Your task to perform on an android device: change the clock display to show seconds Image 0: 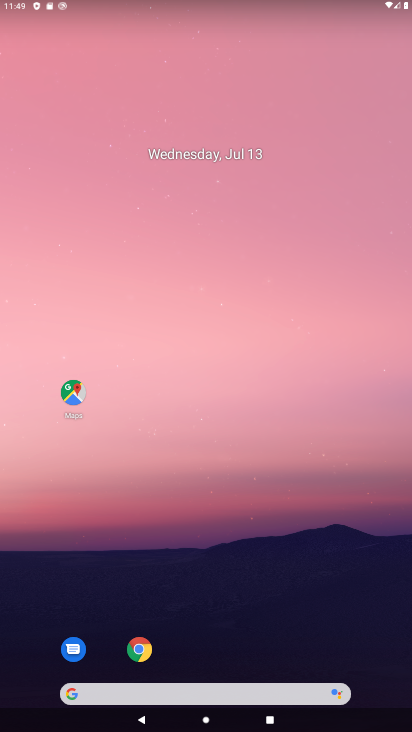
Step 0: drag from (261, 572) to (322, 14)
Your task to perform on an android device: change the clock display to show seconds Image 1: 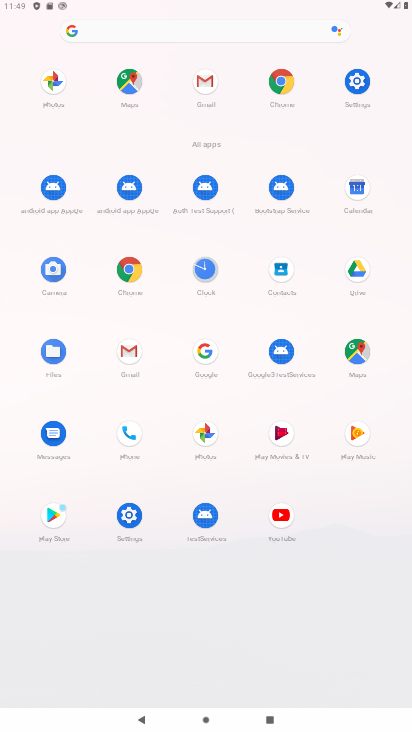
Step 1: click (204, 268)
Your task to perform on an android device: change the clock display to show seconds Image 2: 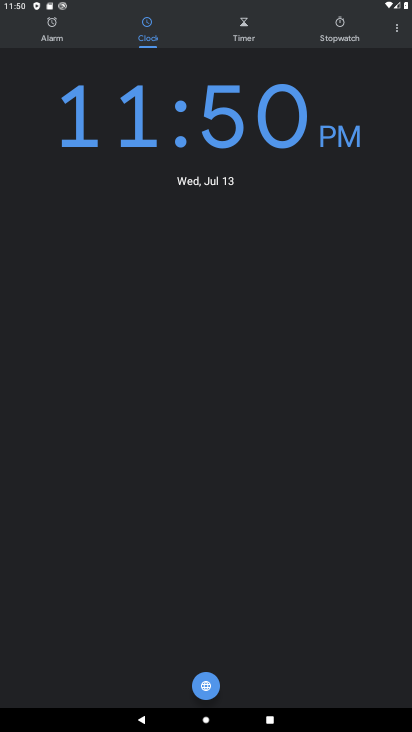
Step 2: click (397, 27)
Your task to perform on an android device: change the clock display to show seconds Image 3: 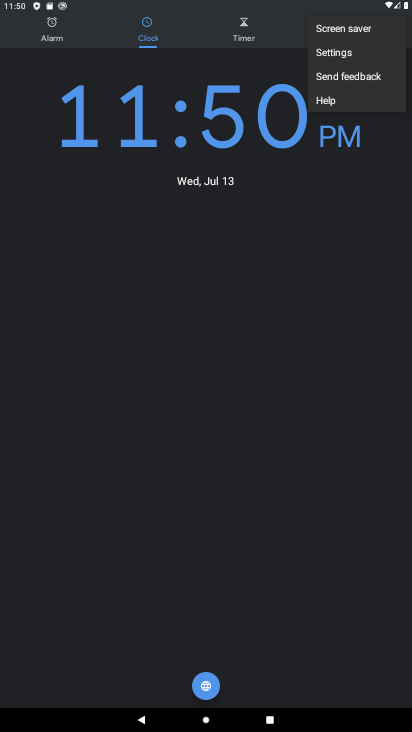
Step 3: click (359, 56)
Your task to perform on an android device: change the clock display to show seconds Image 4: 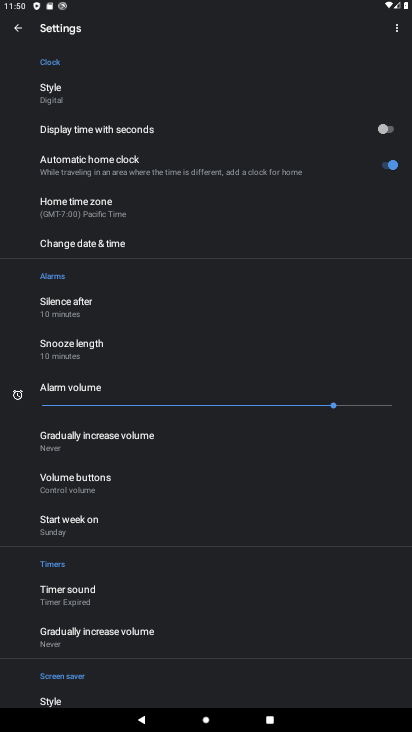
Step 4: click (389, 125)
Your task to perform on an android device: change the clock display to show seconds Image 5: 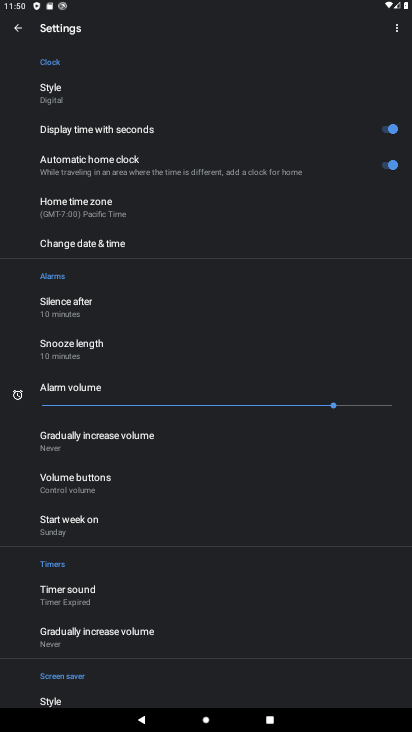
Step 5: task complete